Your task to perform on an android device: change keyboard looks Image 0: 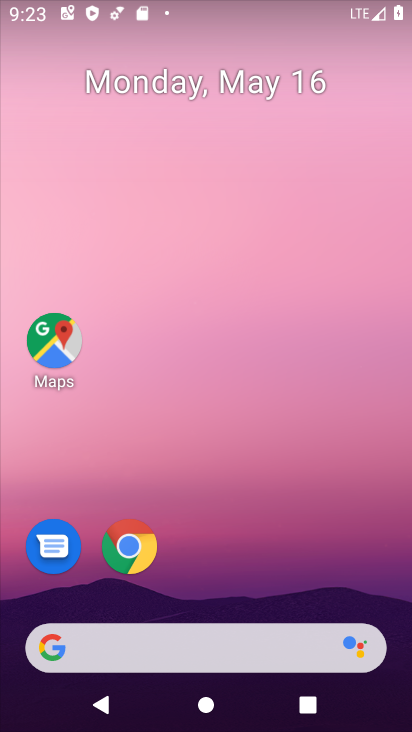
Step 0: drag from (252, 678) to (339, 198)
Your task to perform on an android device: change keyboard looks Image 1: 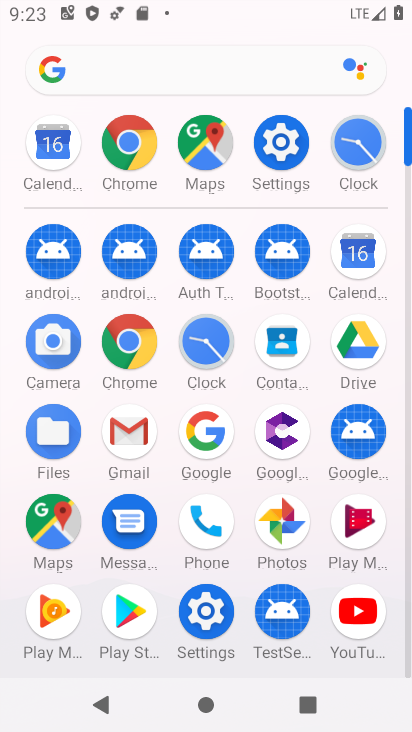
Step 1: click (284, 156)
Your task to perform on an android device: change keyboard looks Image 2: 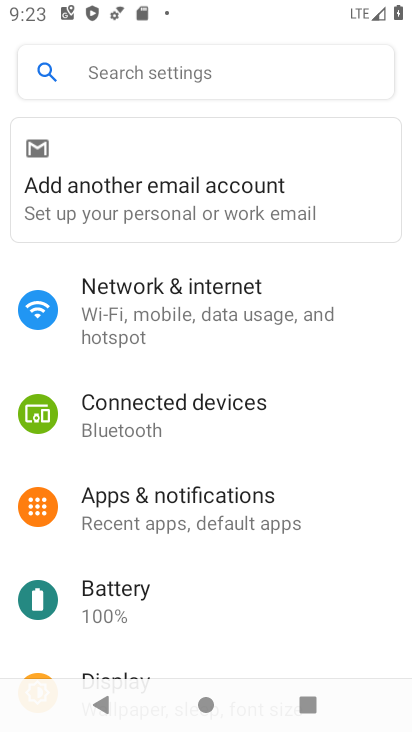
Step 2: click (202, 71)
Your task to perform on an android device: change keyboard looks Image 3: 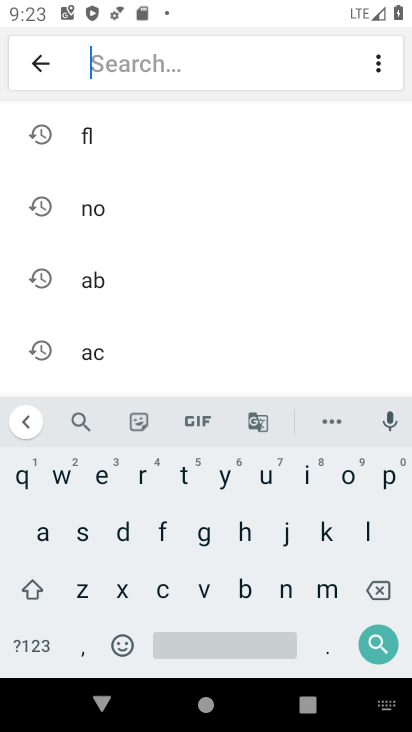
Step 3: click (330, 533)
Your task to perform on an android device: change keyboard looks Image 4: 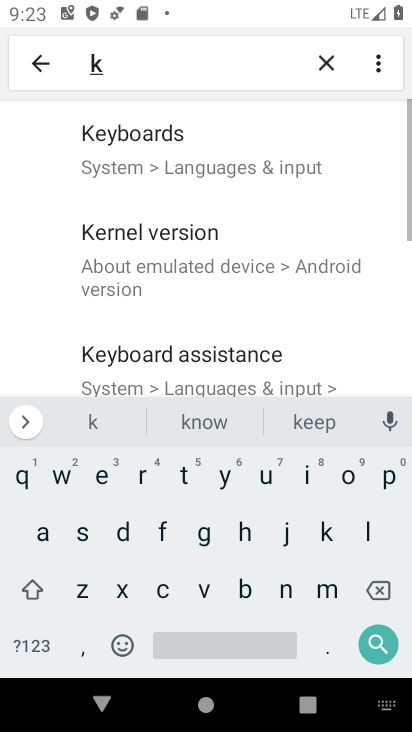
Step 4: click (102, 480)
Your task to perform on an android device: change keyboard looks Image 5: 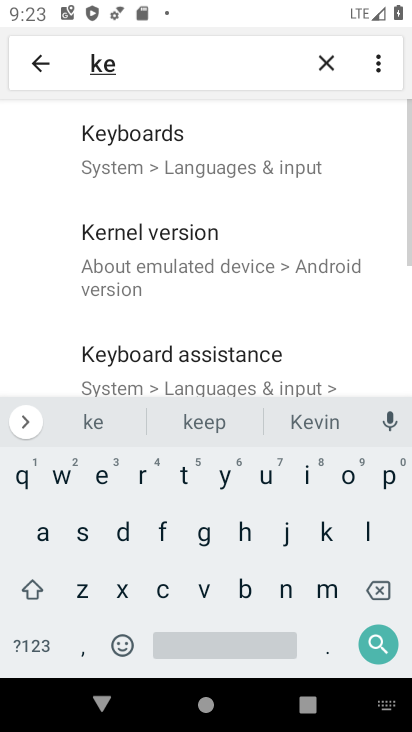
Step 5: click (226, 166)
Your task to perform on an android device: change keyboard looks Image 6: 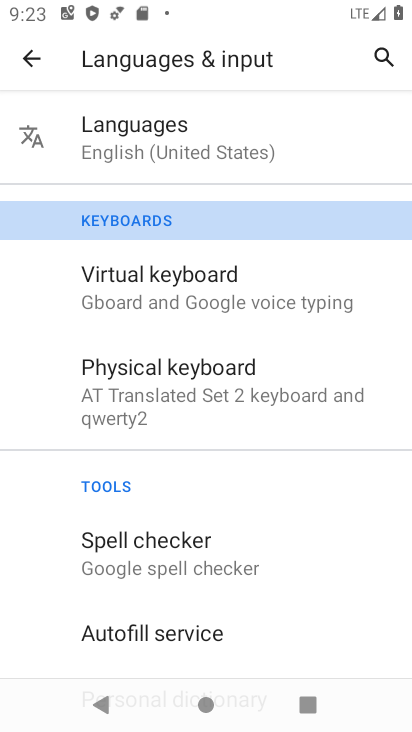
Step 6: click (155, 303)
Your task to perform on an android device: change keyboard looks Image 7: 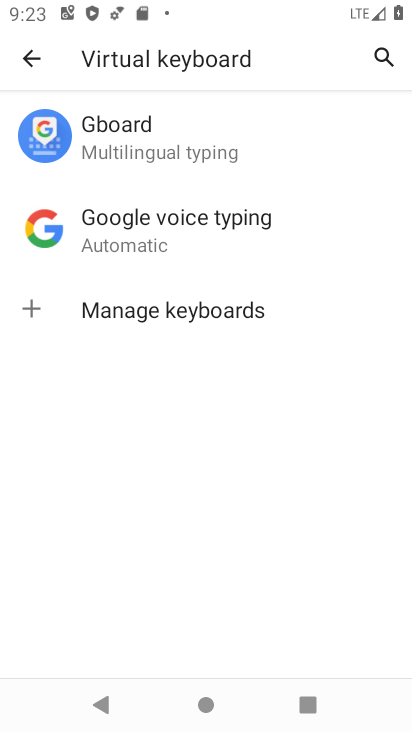
Step 7: click (164, 152)
Your task to perform on an android device: change keyboard looks Image 8: 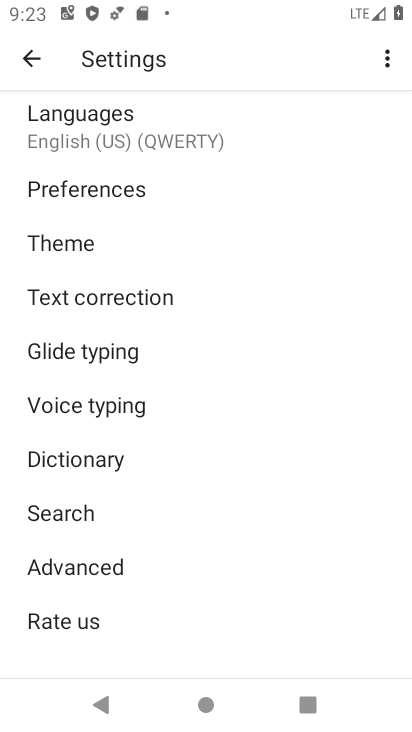
Step 8: click (85, 242)
Your task to perform on an android device: change keyboard looks Image 9: 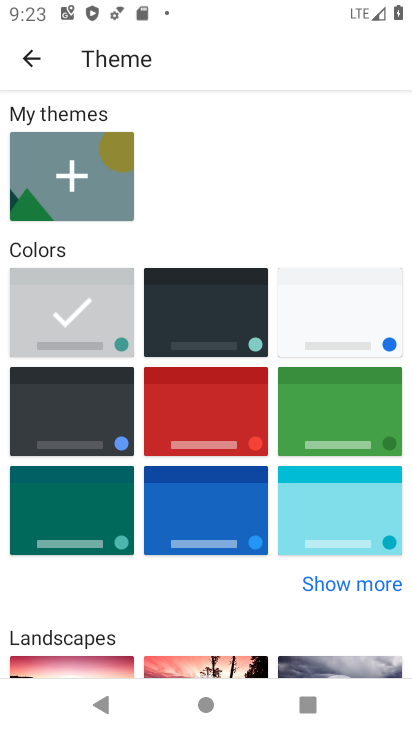
Step 9: click (78, 503)
Your task to perform on an android device: change keyboard looks Image 10: 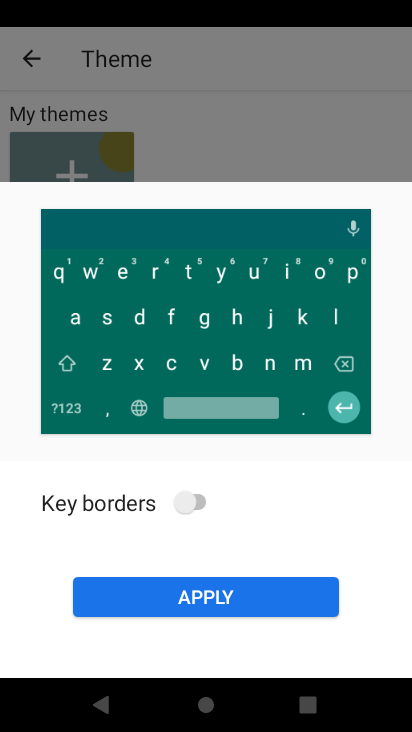
Step 10: click (186, 505)
Your task to perform on an android device: change keyboard looks Image 11: 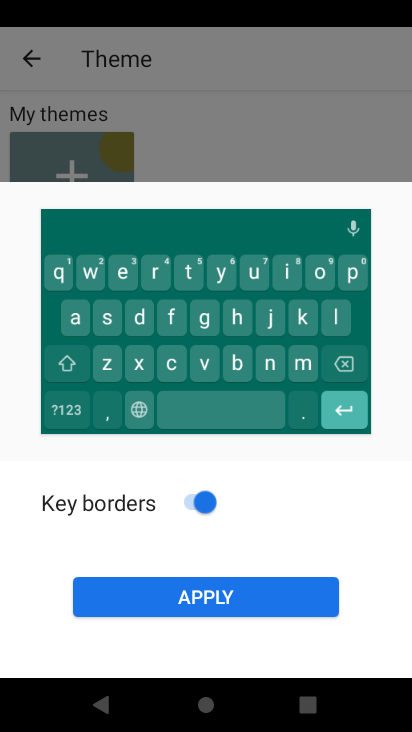
Step 11: click (230, 600)
Your task to perform on an android device: change keyboard looks Image 12: 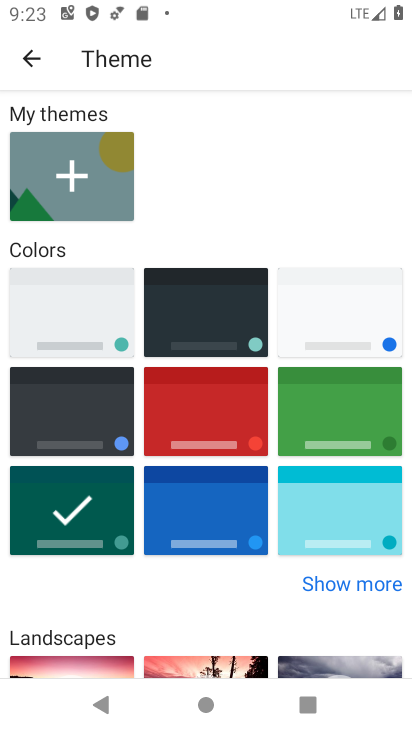
Step 12: task complete